Your task to perform on an android device: find photos in the google photos app Image 0: 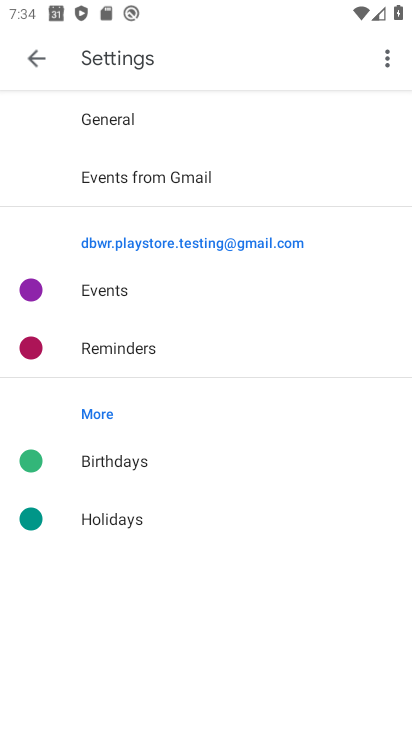
Step 0: press home button
Your task to perform on an android device: find photos in the google photos app Image 1: 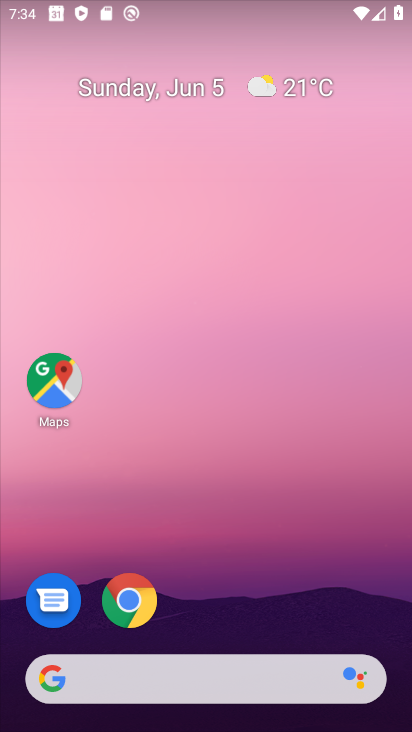
Step 1: drag from (149, 662) to (138, 69)
Your task to perform on an android device: find photos in the google photos app Image 2: 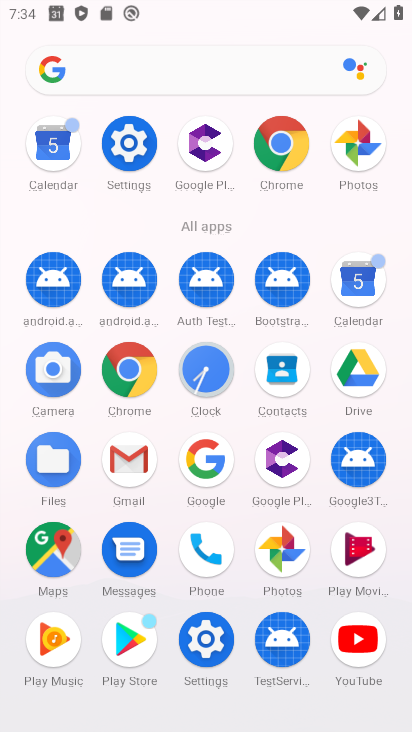
Step 2: click (299, 552)
Your task to perform on an android device: find photos in the google photos app Image 3: 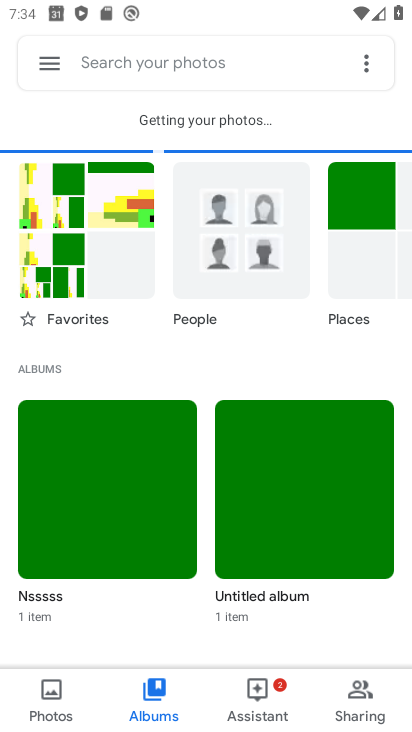
Step 3: click (47, 714)
Your task to perform on an android device: find photos in the google photos app Image 4: 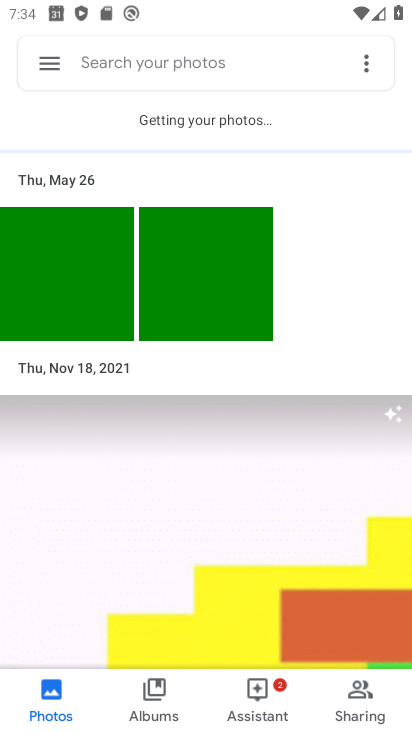
Step 4: task complete